Your task to perform on an android device: Go to Yahoo.com Image 0: 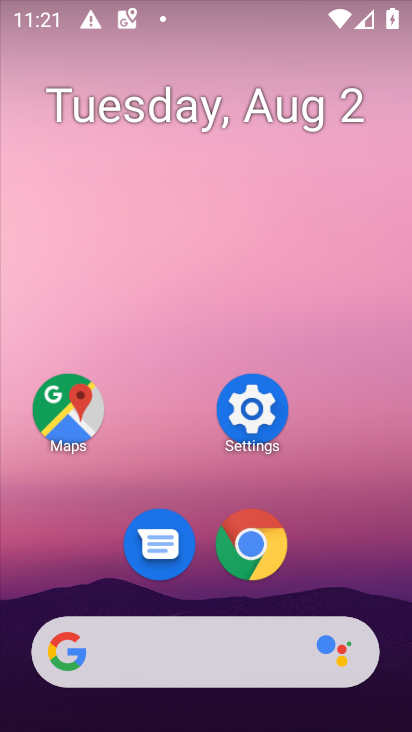
Step 0: press home button
Your task to perform on an android device: Go to Yahoo.com Image 1: 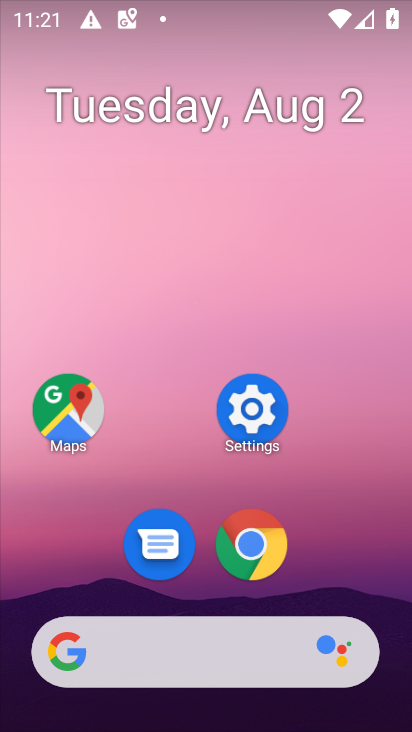
Step 1: click (263, 553)
Your task to perform on an android device: Go to Yahoo.com Image 2: 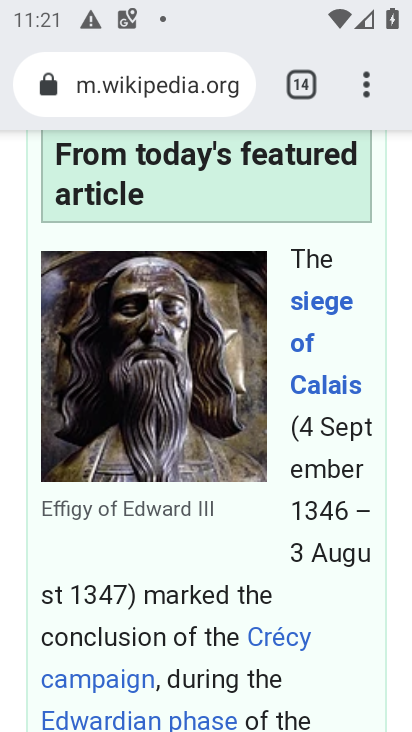
Step 2: drag from (364, 81) to (190, 182)
Your task to perform on an android device: Go to Yahoo.com Image 3: 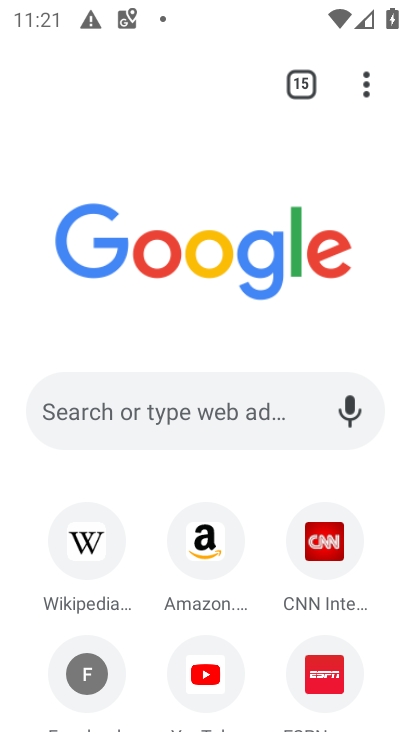
Step 3: drag from (257, 634) to (295, 432)
Your task to perform on an android device: Go to Yahoo.com Image 4: 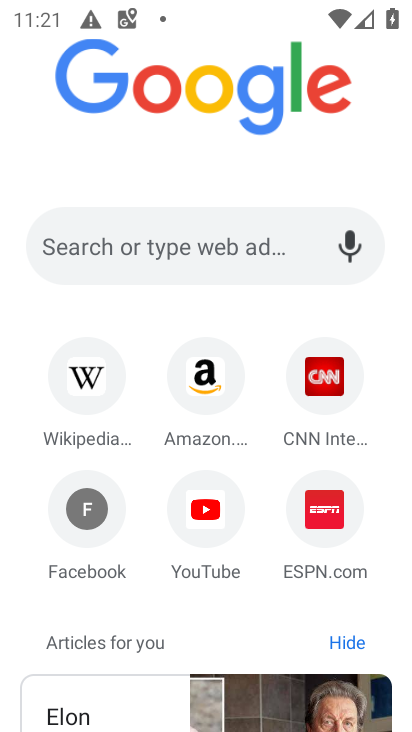
Step 4: drag from (275, 324) to (229, 642)
Your task to perform on an android device: Go to Yahoo.com Image 5: 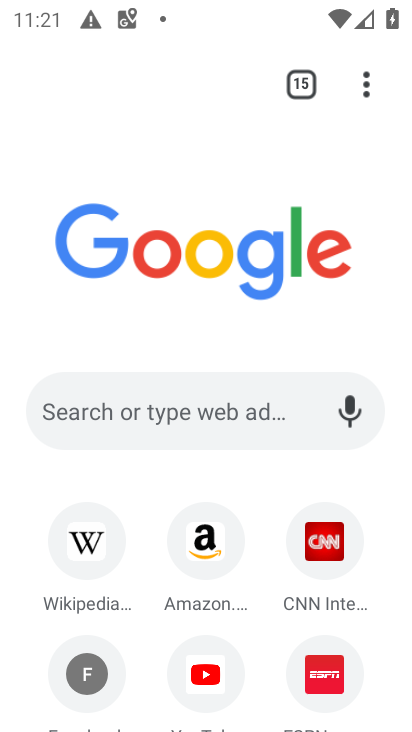
Step 5: click (132, 402)
Your task to perform on an android device: Go to Yahoo.com Image 6: 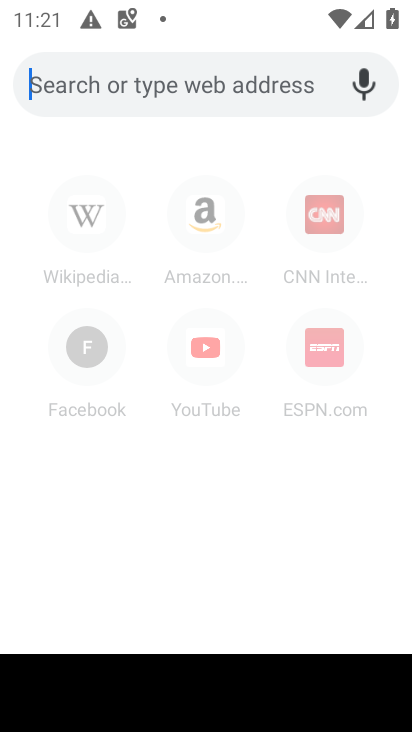
Step 6: type "Yahoo.com"
Your task to perform on an android device: Go to Yahoo.com Image 7: 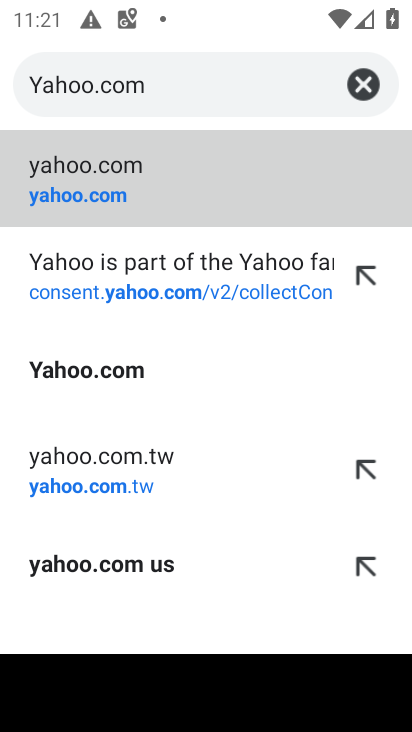
Step 7: click (162, 190)
Your task to perform on an android device: Go to Yahoo.com Image 8: 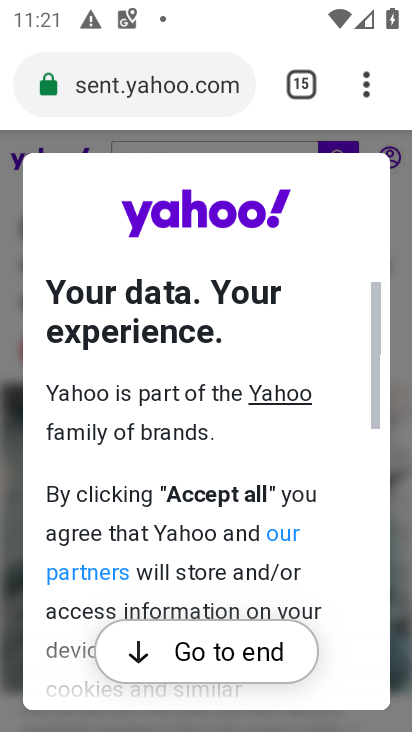
Step 8: click (201, 657)
Your task to perform on an android device: Go to Yahoo.com Image 9: 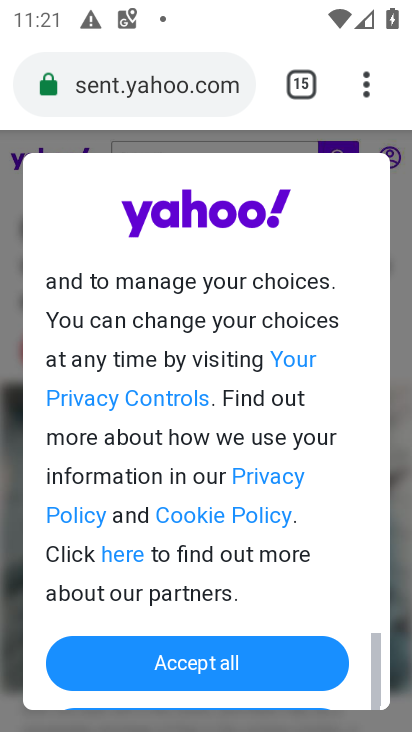
Step 9: click (216, 668)
Your task to perform on an android device: Go to Yahoo.com Image 10: 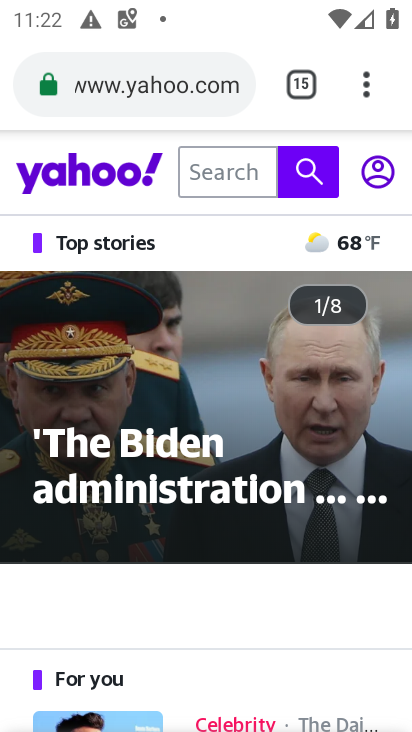
Step 10: task complete